Your task to perform on an android device: change timer sound Image 0: 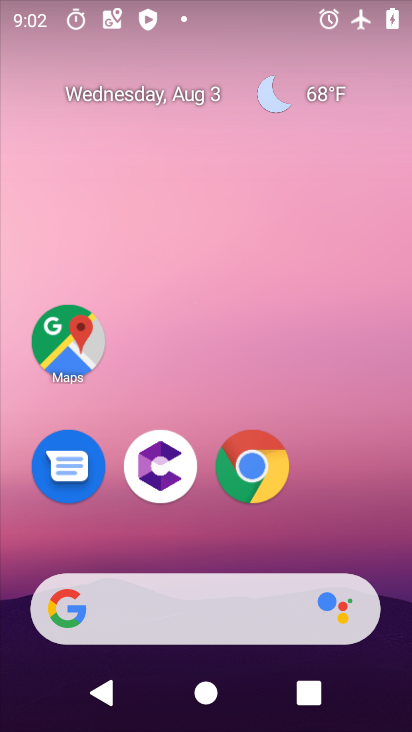
Step 0: drag from (346, 523) to (342, 13)
Your task to perform on an android device: change timer sound Image 1: 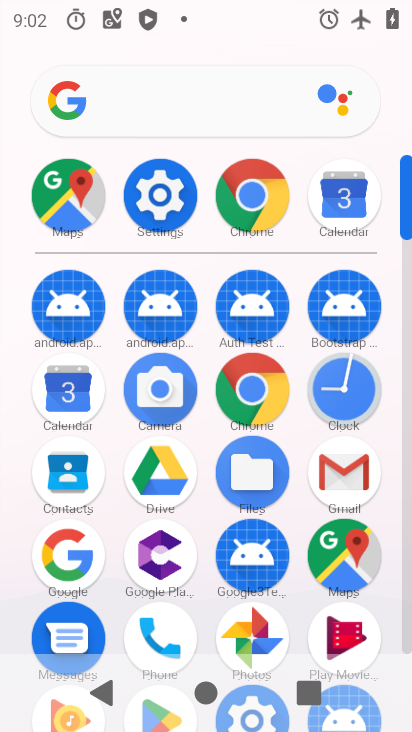
Step 1: click (333, 394)
Your task to perform on an android device: change timer sound Image 2: 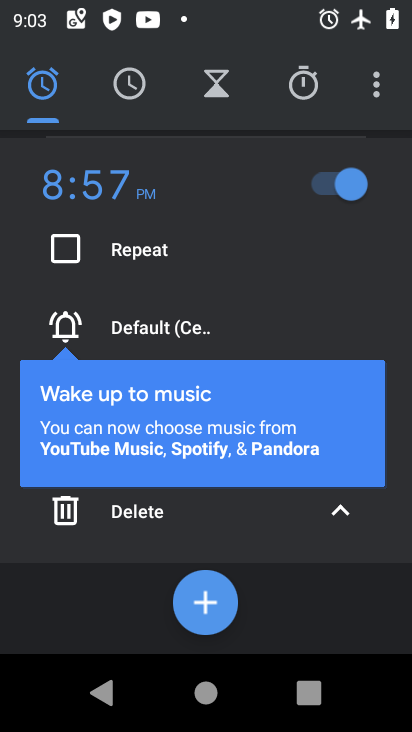
Step 2: click (381, 70)
Your task to perform on an android device: change timer sound Image 3: 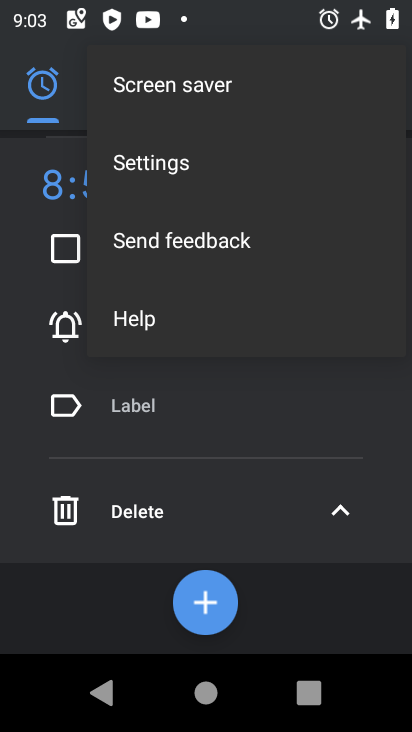
Step 3: click (168, 181)
Your task to perform on an android device: change timer sound Image 4: 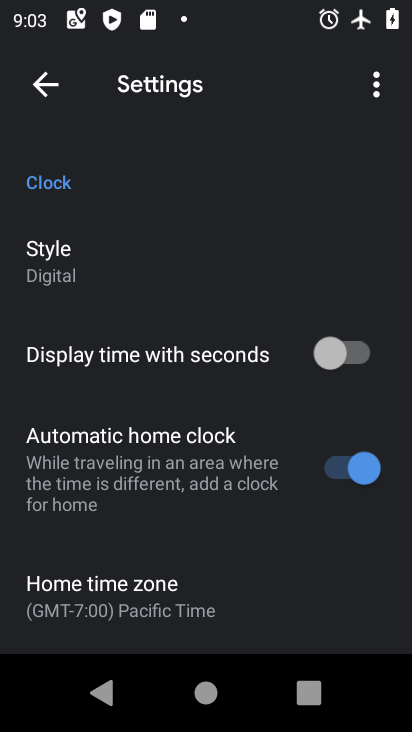
Step 4: drag from (272, 644) to (248, 100)
Your task to perform on an android device: change timer sound Image 5: 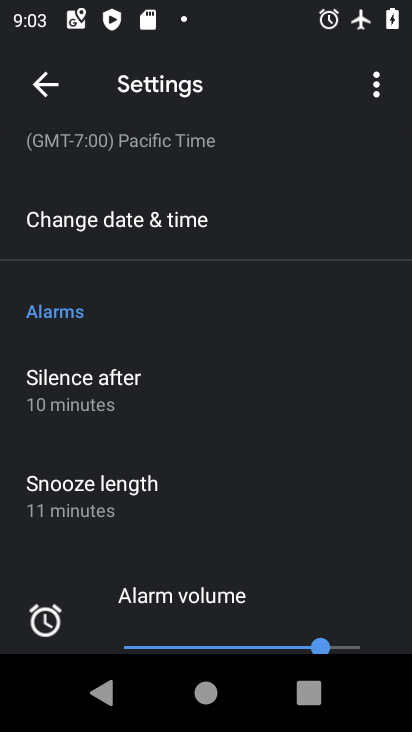
Step 5: drag from (245, 565) to (252, 242)
Your task to perform on an android device: change timer sound Image 6: 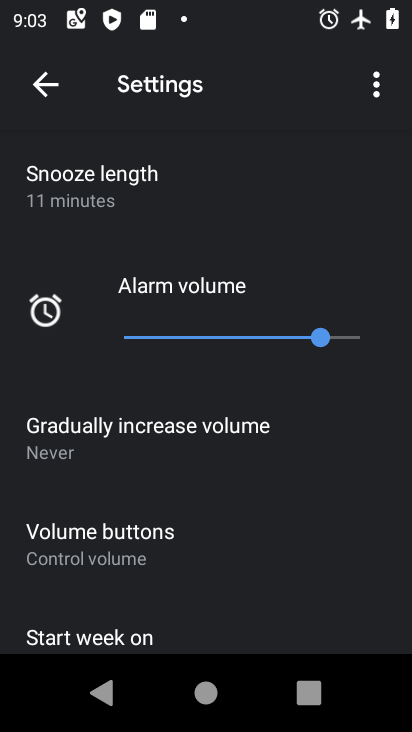
Step 6: drag from (316, 571) to (295, 198)
Your task to perform on an android device: change timer sound Image 7: 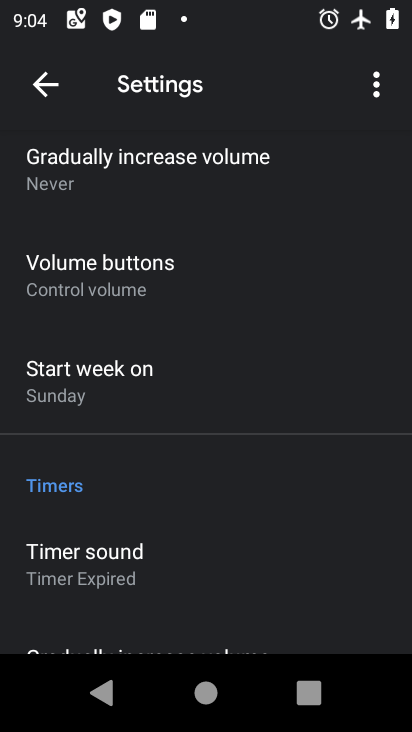
Step 7: click (94, 561)
Your task to perform on an android device: change timer sound Image 8: 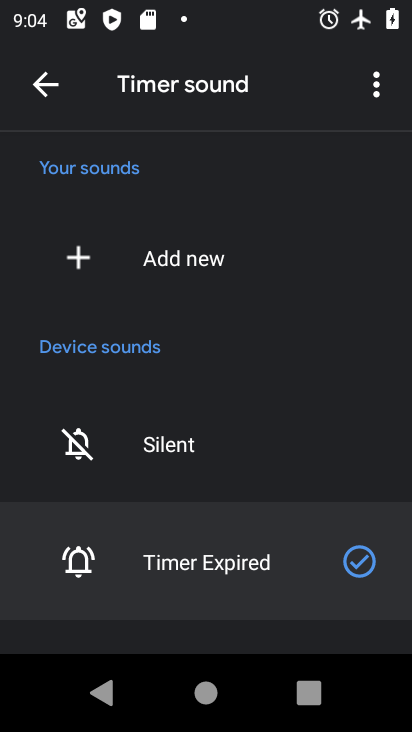
Step 8: drag from (286, 425) to (271, 128)
Your task to perform on an android device: change timer sound Image 9: 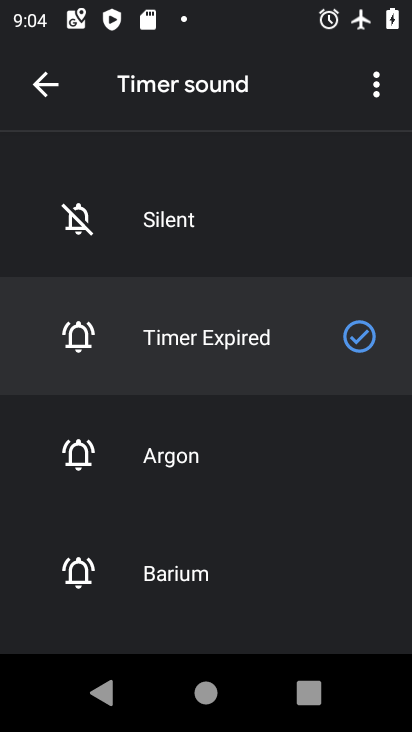
Step 9: click (228, 438)
Your task to perform on an android device: change timer sound Image 10: 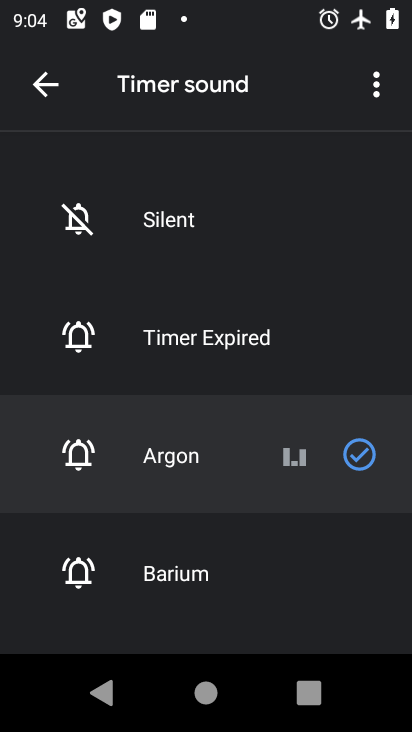
Step 10: task complete